Your task to perform on an android device: Go to internet settings Image 0: 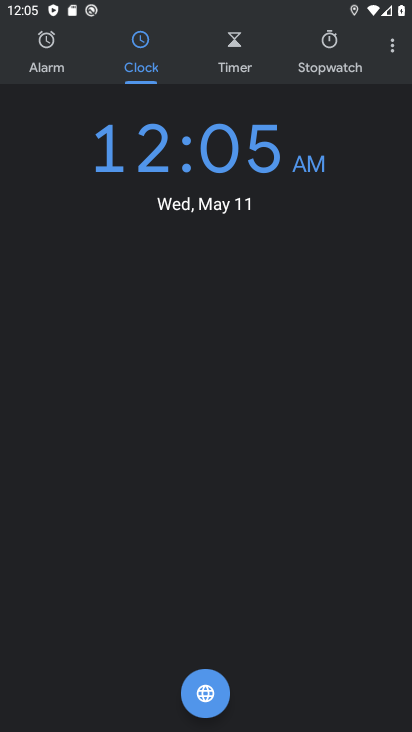
Step 0: press home button
Your task to perform on an android device: Go to internet settings Image 1: 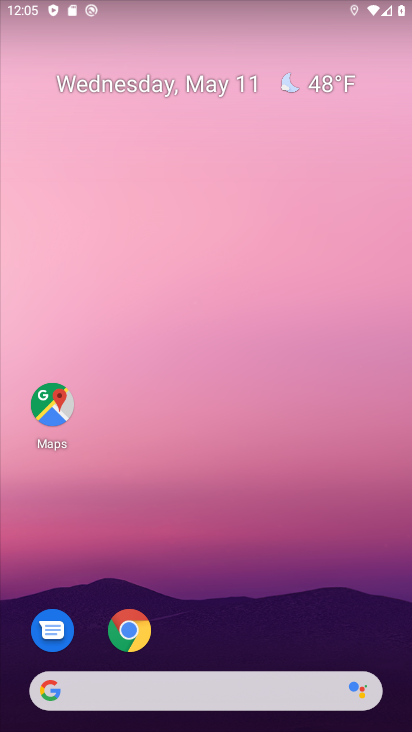
Step 1: drag from (189, 694) to (161, 68)
Your task to perform on an android device: Go to internet settings Image 2: 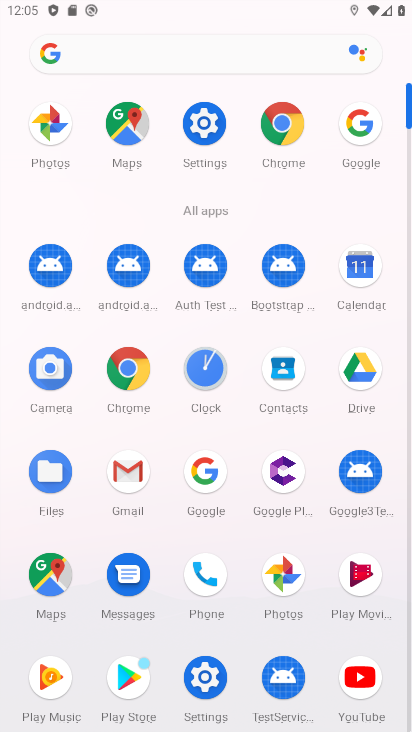
Step 2: click (201, 126)
Your task to perform on an android device: Go to internet settings Image 3: 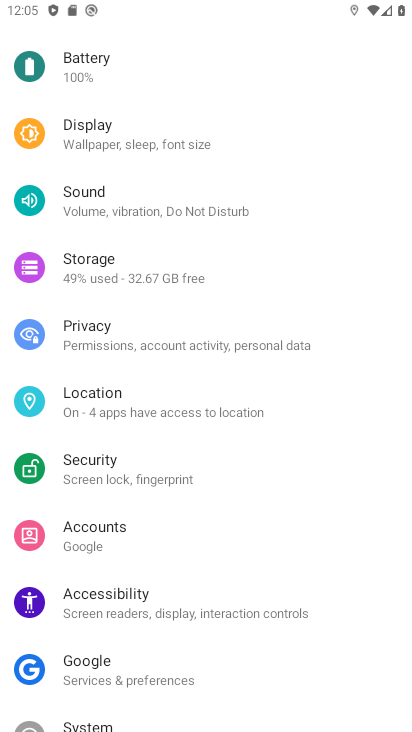
Step 3: drag from (201, 126) to (170, 627)
Your task to perform on an android device: Go to internet settings Image 4: 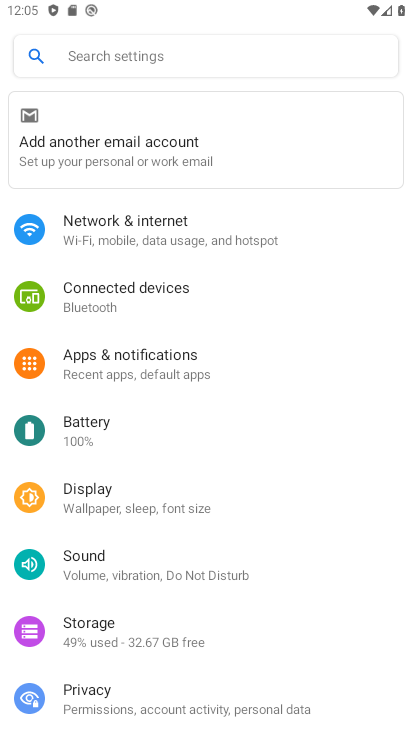
Step 4: click (132, 234)
Your task to perform on an android device: Go to internet settings Image 5: 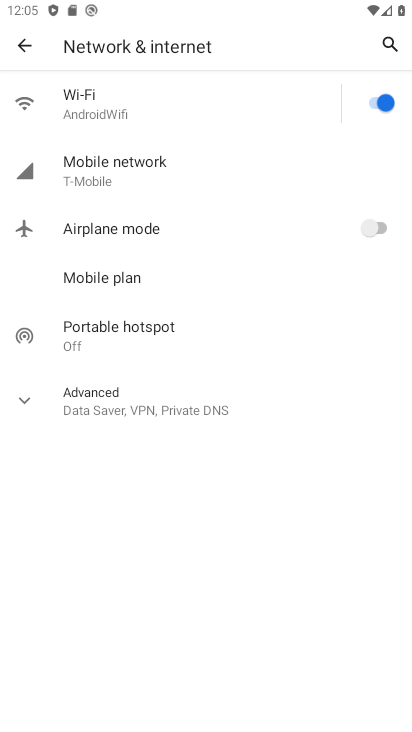
Step 5: click (114, 188)
Your task to perform on an android device: Go to internet settings Image 6: 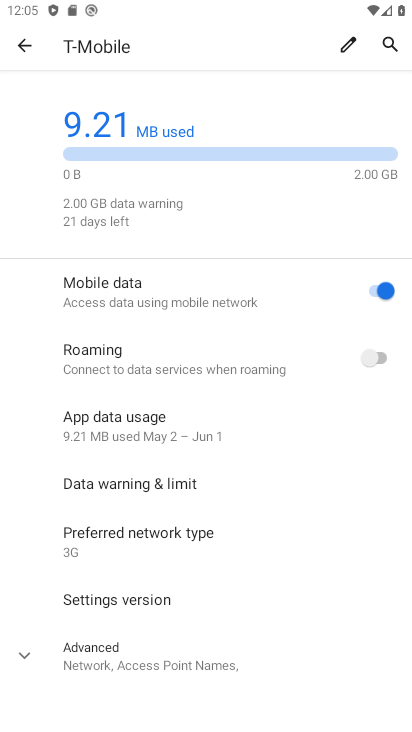
Step 6: click (172, 665)
Your task to perform on an android device: Go to internet settings Image 7: 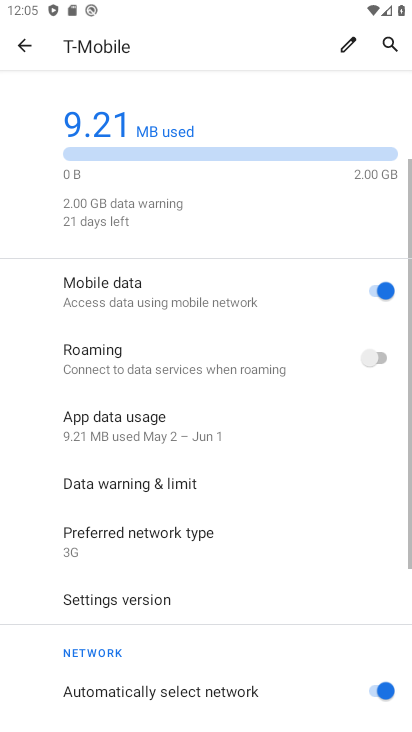
Step 7: task complete